Your task to perform on an android device: Toggle the flashlight Image 0: 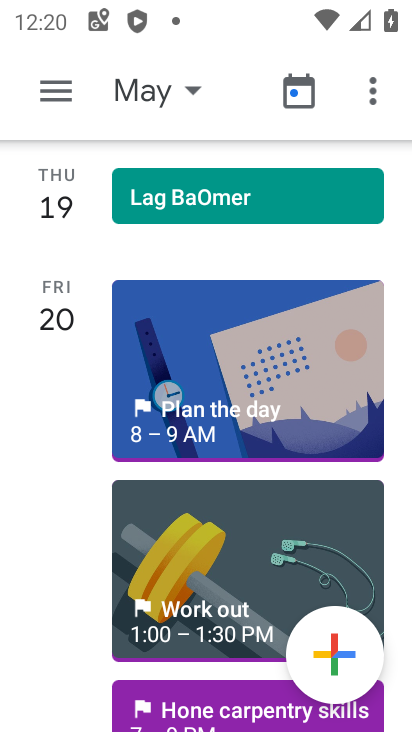
Step 0: drag from (271, 3) to (282, 326)
Your task to perform on an android device: Toggle the flashlight Image 1: 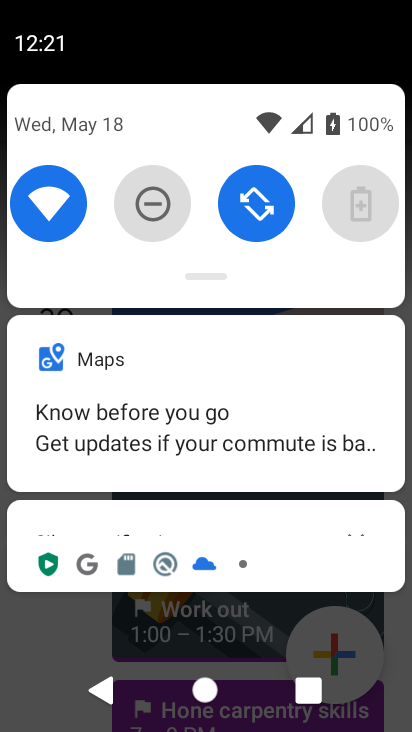
Step 1: task complete